Your task to perform on an android device: Play the last video I watched on Youtube Image 0: 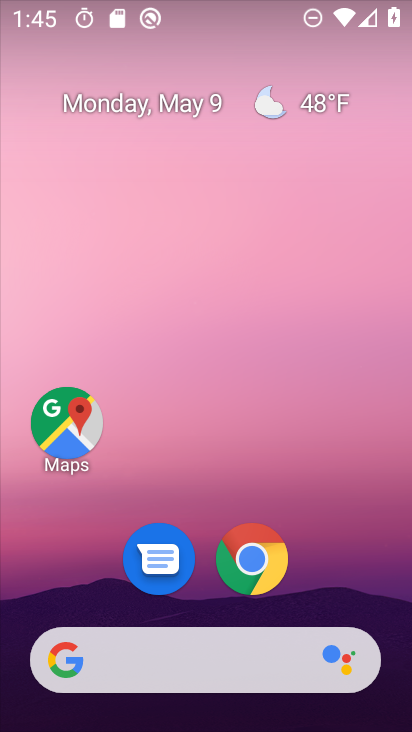
Step 0: drag from (216, 611) to (305, 144)
Your task to perform on an android device: Play the last video I watched on Youtube Image 1: 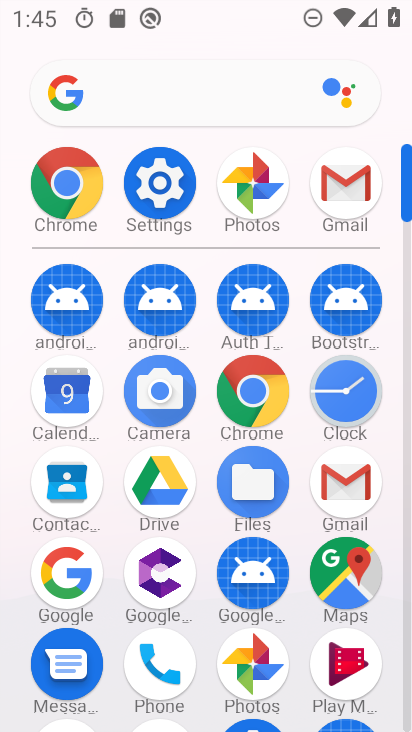
Step 1: drag from (210, 656) to (211, 314)
Your task to perform on an android device: Play the last video I watched on Youtube Image 2: 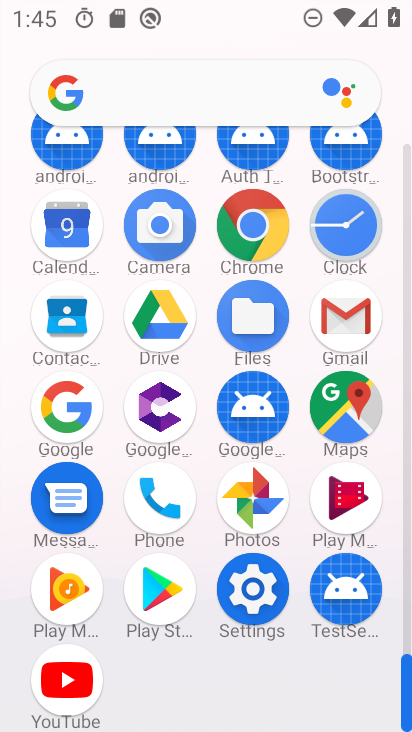
Step 2: click (85, 671)
Your task to perform on an android device: Play the last video I watched on Youtube Image 3: 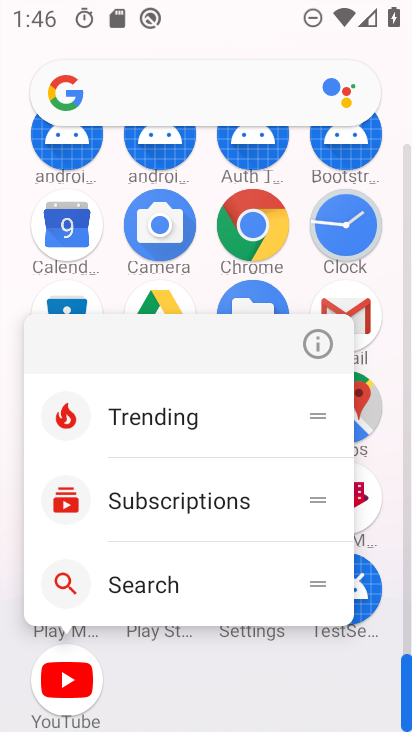
Step 3: click (325, 350)
Your task to perform on an android device: Play the last video I watched on Youtube Image 4: 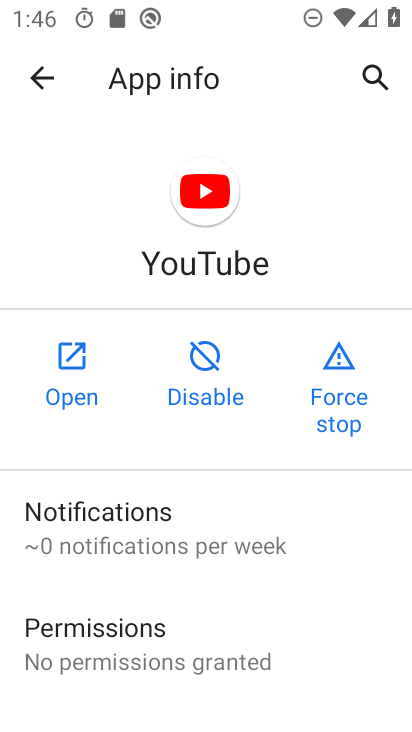
Step 4: click (79, 388)
Your task to perform on an android device: Play the last video I watched on Youtube Image 5: 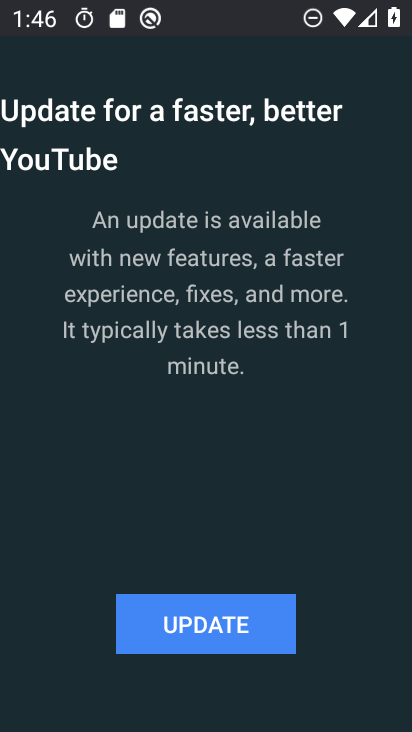
Step 5: task complete